Your task to perform on an android device: Open the map Image 0: 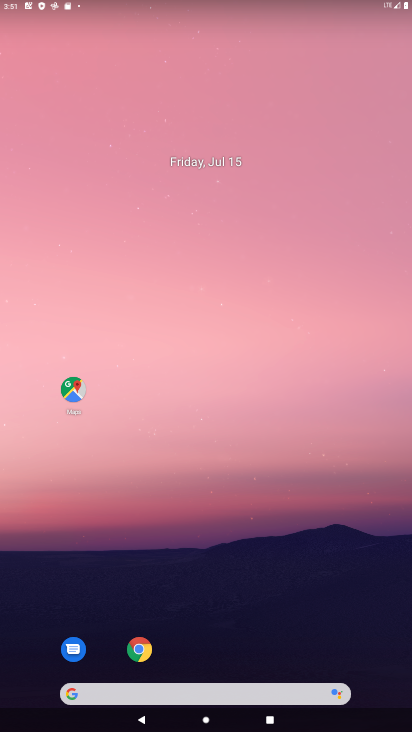
Step 0: drag from (282, 614) to (175, 75)
Your task to perform on an android device: Open the map Image 1: 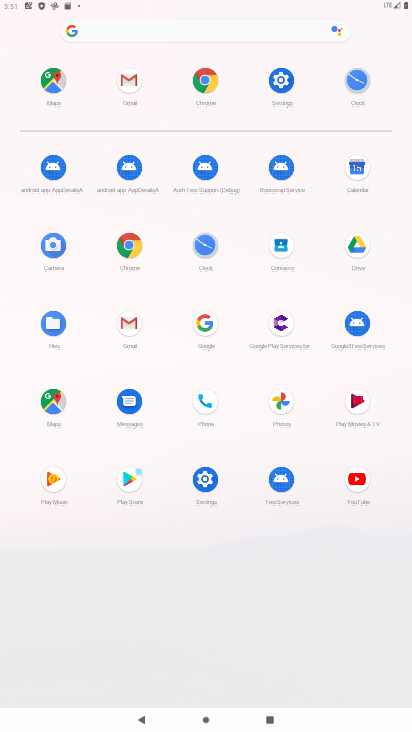
Step 1: click (54, 78)
Your task to perform on an android device: Open the map Image 2: 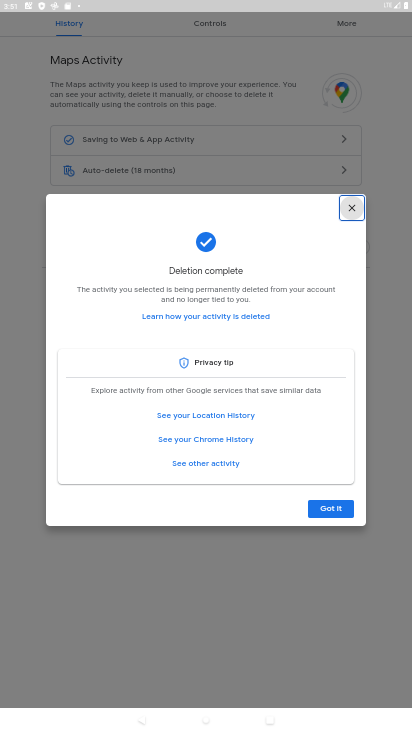
Step 2: task complete